Your task to perform on an android device: Toggle the flashlight Image 0: 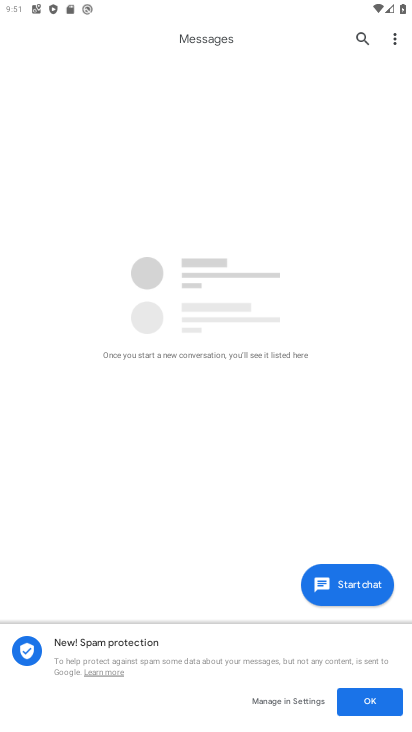
Step 0: drag from (197, 633) to (233, 247)
Your task to perform on an android device: Toggle the flashlight Image 1: 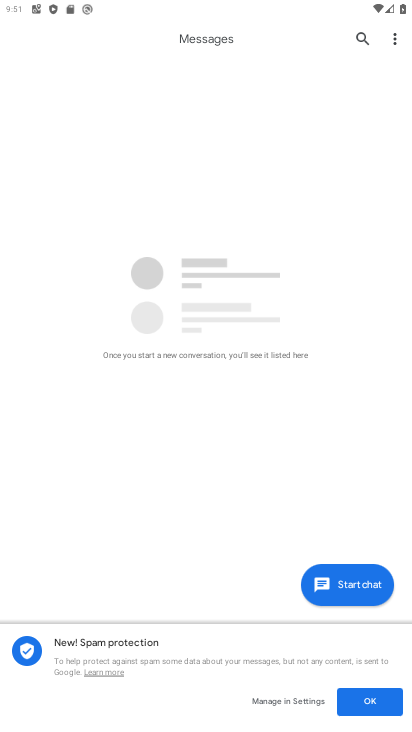
Step 1: press home button
Your task to perform on an android device: Toggle the flashlight Image 2: 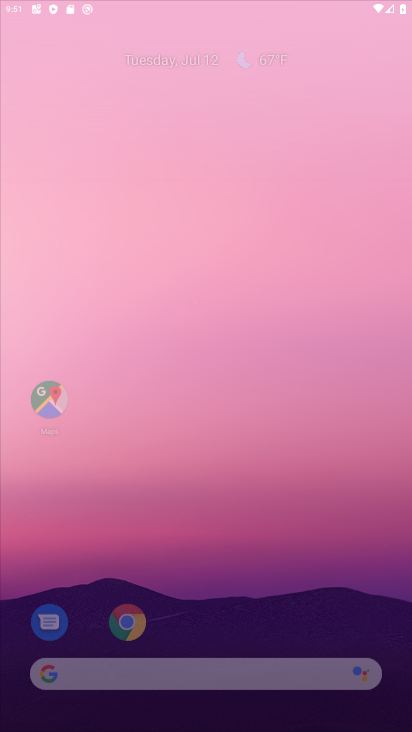
Step 2: drag from (246, 576) to (274, 116)
Your task to perform on an android device: Toggle the flashlight Image 3: 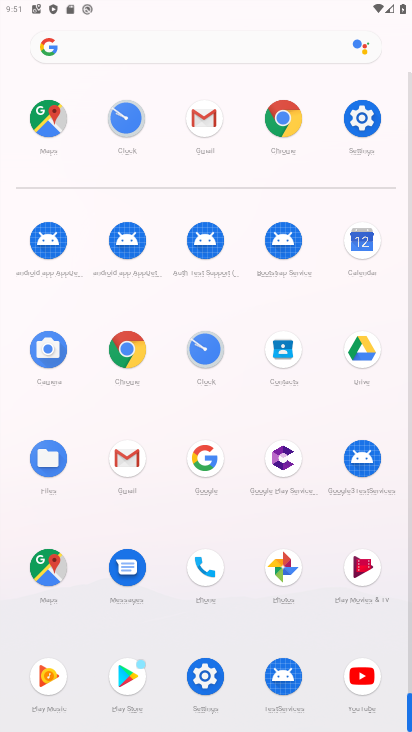
Step 3: click (365, 115)
Your task to perform on an android device: Toggle the flashlight Image 4: 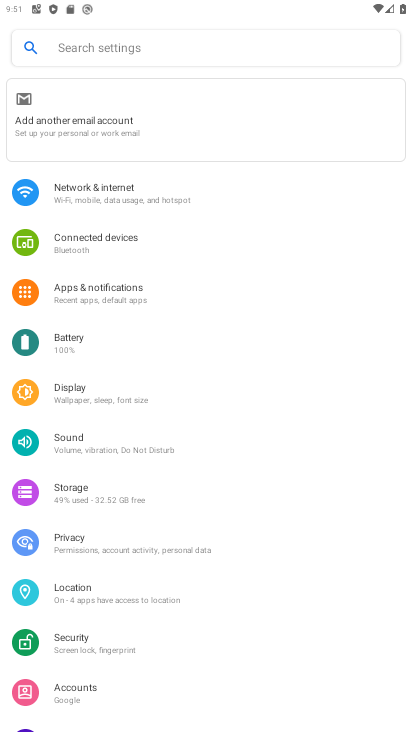
Step 4: click (133, 41)
Your task to perform on an android device: Toggle the flashlight Image 5: 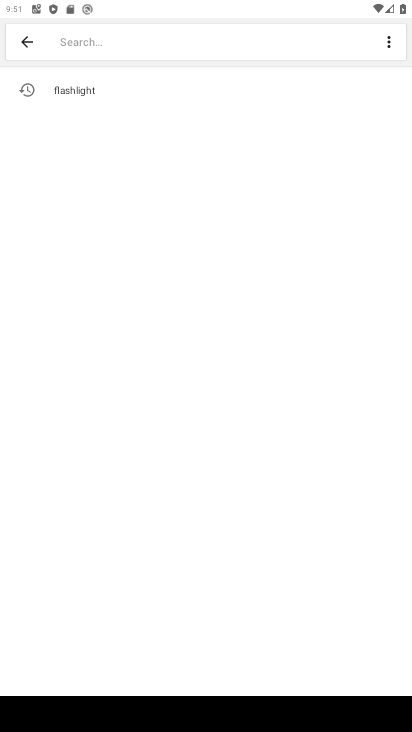
Step 5: click (23, 43)
Your task to perform on an android device: Toggle the flashlight Image 6: 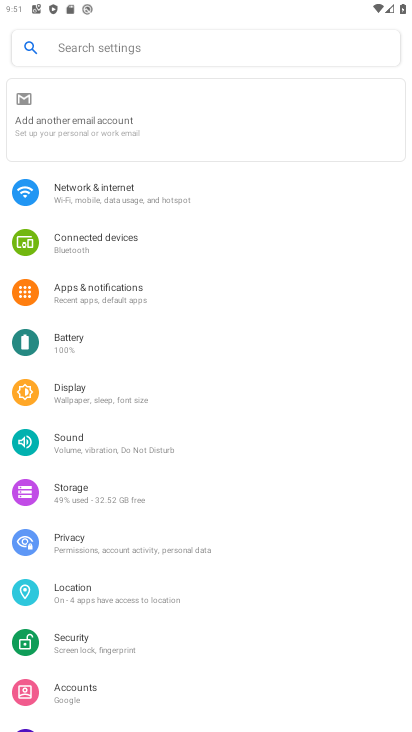
Step 6: click (124, 42)
Your task to perform on an android device: Toggle the flashlight Image 7: 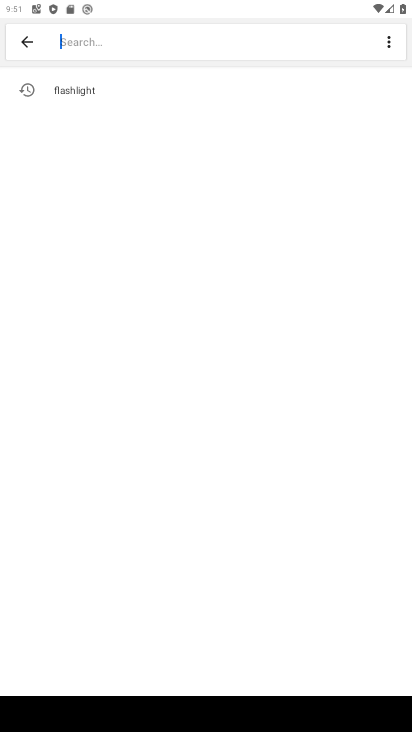
Step 7: click (87, 92)
Your task to perform on an android device: Toggle the flashlight Image 8: 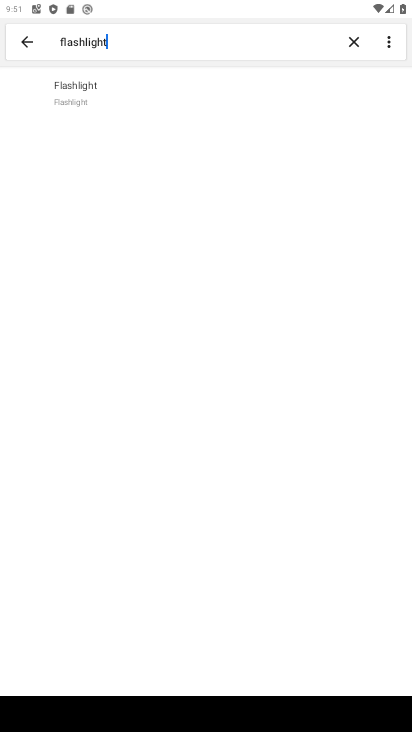
Step 8: task complete